Your task to perform on an android device: Open Android settings Image 0: 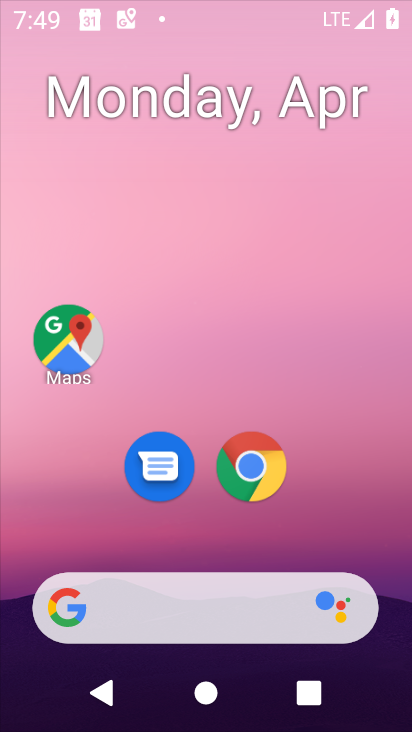
Step 0: drag from (197, 512) to (210, 133)
Your task to perform on an android device: Open Android settings Image 1: 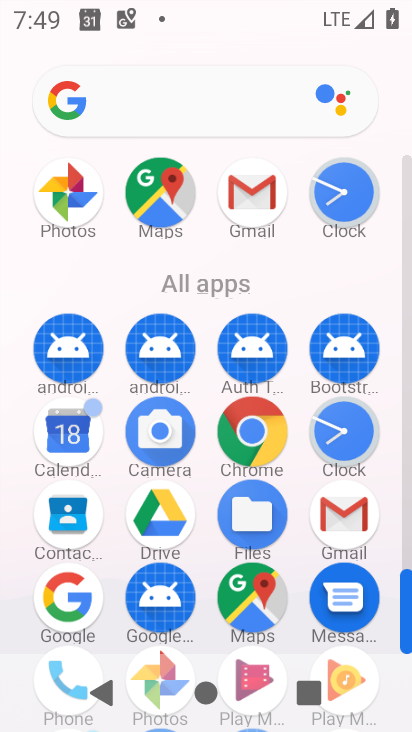
Step 1: drag from (214, 610) to (227, 280)
Your task to perform on an android device: Open Android settings Image 2: 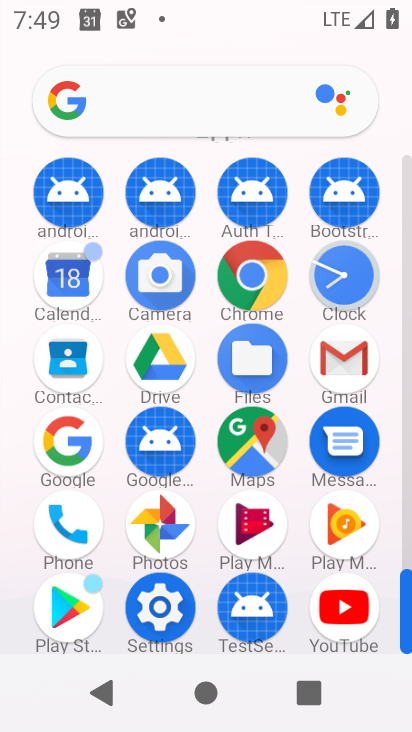
Step 2: click (148, 606)
Your task to perform on an android device: Open Android settings Image 3: 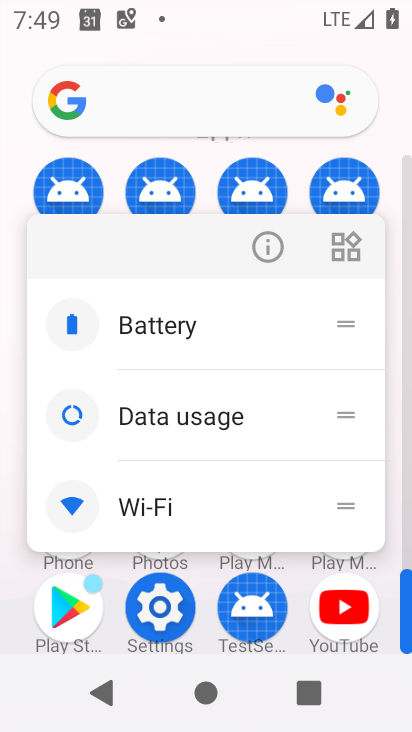
Step 3: click (272, 247)
Your task to perform on an android device: Open Android settings Image 4: 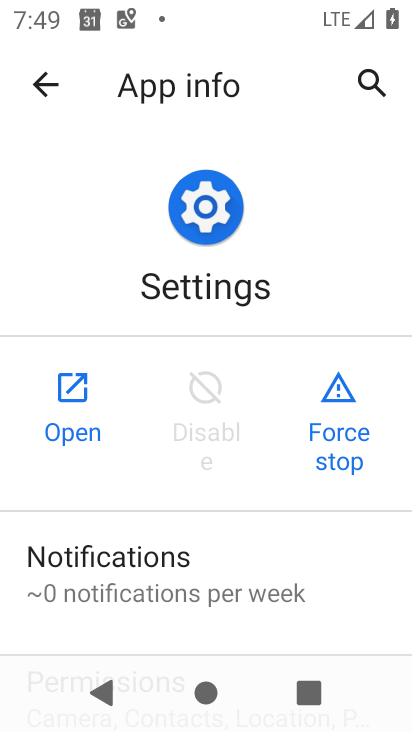
Step 4: click (68, 399)
Your task to perform on an android device: Open Android settings Image 5: 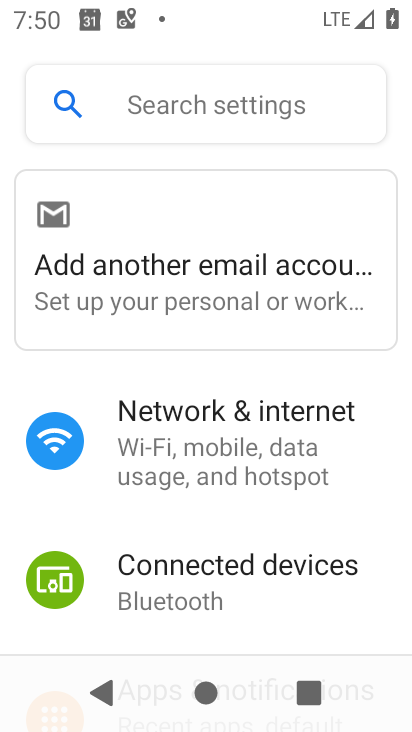
Step 5: drag from (212, 596) to (279, 278)
Your task to perform on an android device: Open Android settings Image 6: 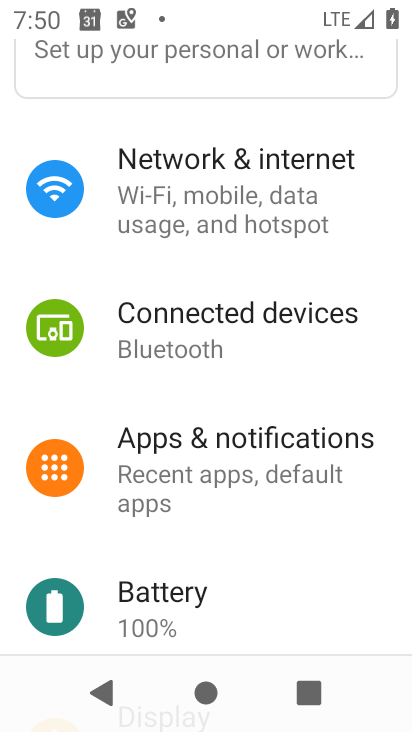
Step 6: drag from (212, 511) to (281, 171)
Your task to perform on an android device: Open Android settings Image 7: 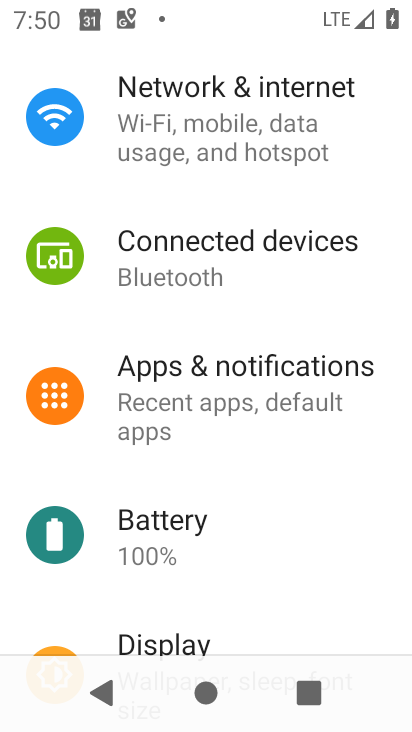
Step 7: drag from (198, 636) to (271, 146)
Your task to perform on an android device: Open Android settings Image 8: 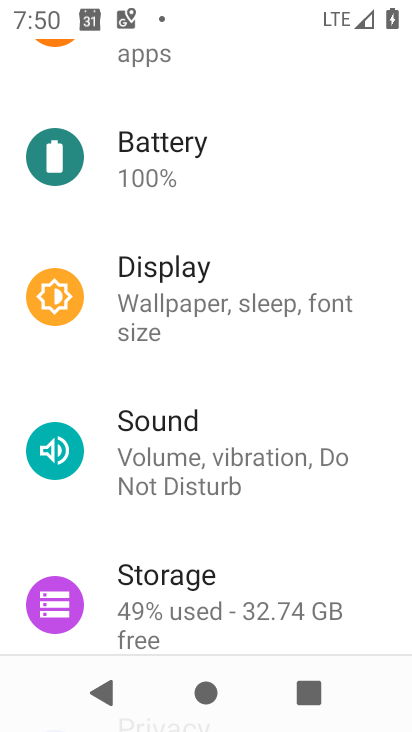
Step 8: drag from (222, 601) to (363, 72)
Your task to perform on an android device: Open Android settings Image 9: 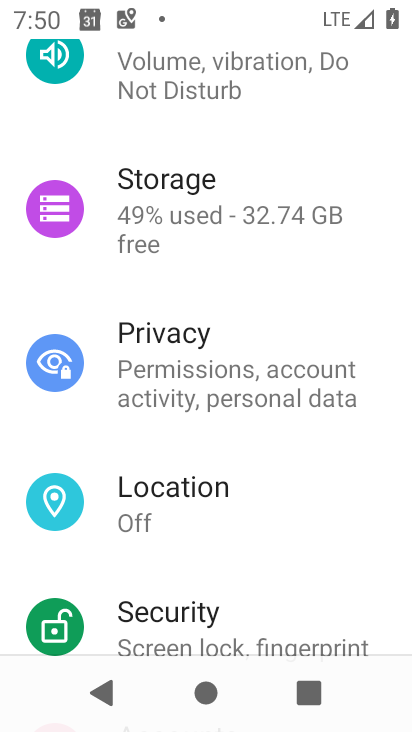
Step 9: drag from (224, 607) to (266, 32)
Your task to perform on an android device: Open Android settings Image 10: 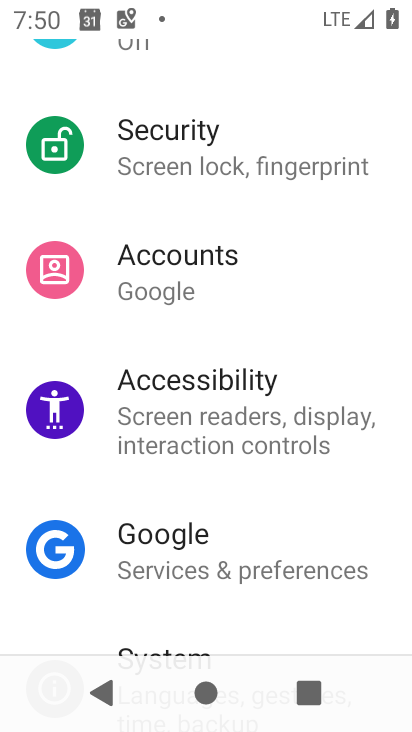
Step 10: drag from (290, 574) to (273, 28)
Your task to perform on an android device: Open Android settings Image 11: 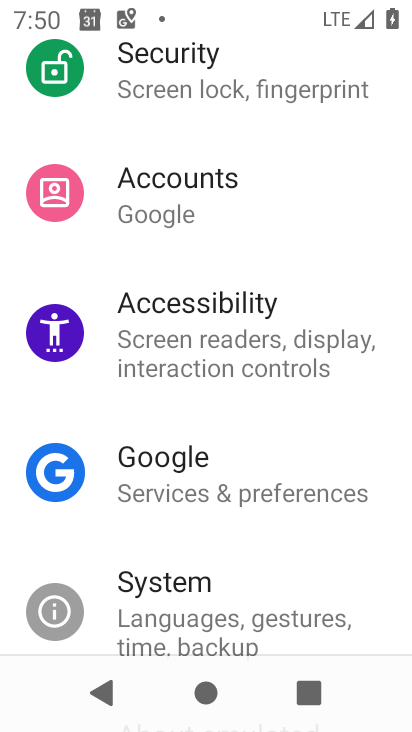
Step 11: drag from (234, 584) to (301, 14)
Your task to perform on an android device: Open Android settings Image 12: 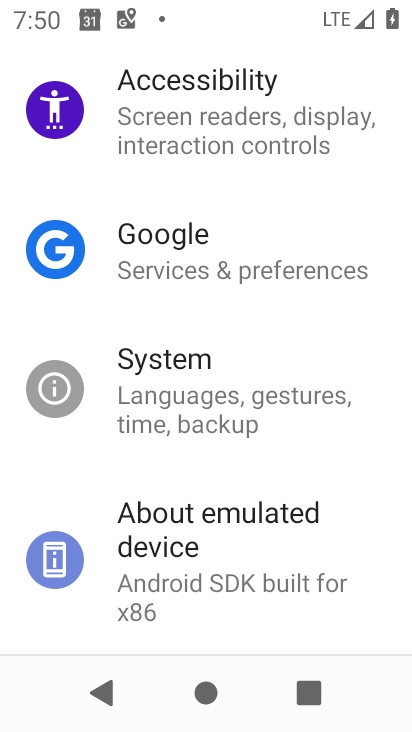
Step 12: click (212, 580)
Your task to perform on an android device: Open Android settings Image 13: 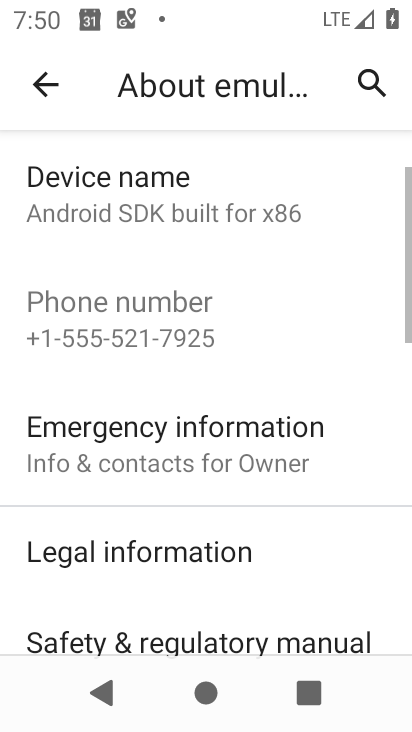
Step 13: drag from (192, 609) to (216, 152)
Your task to perform on an android device: Open Android settings Image 14: 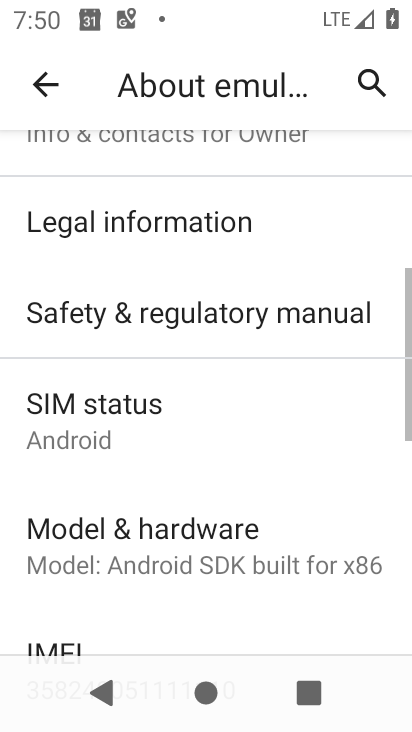
Step 14: drag from (169, 617) to (169, 177)
Your task to perform on an android device: Open Android settings Image 15: 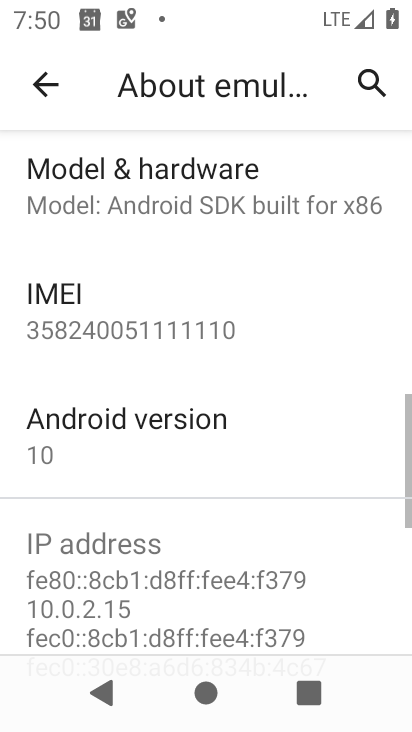
Step 15: click (147, 451)
Your task to perform on an android device: Open Android settings Image 16: 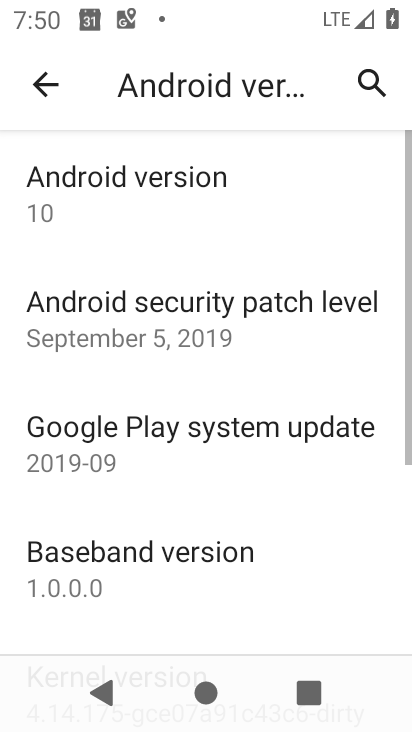
Step 16: task complete